Your task to perform on an android device: see creations saved in the google photos Image 0: 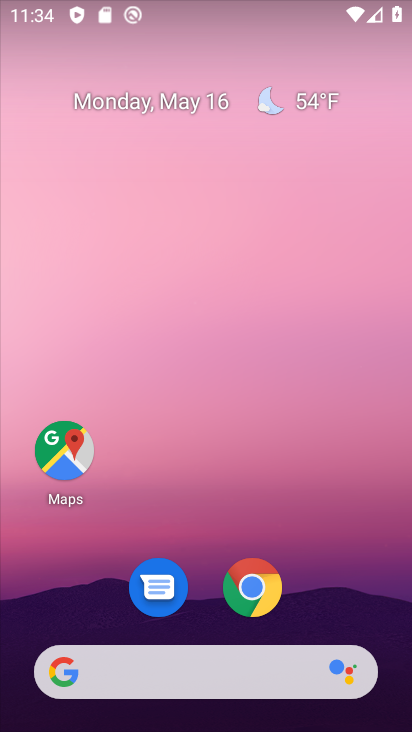
Step 0: drag from (215, 609) to (222, 30)
Your task to perform on an android device: see creations saved in the google photos Image 1: 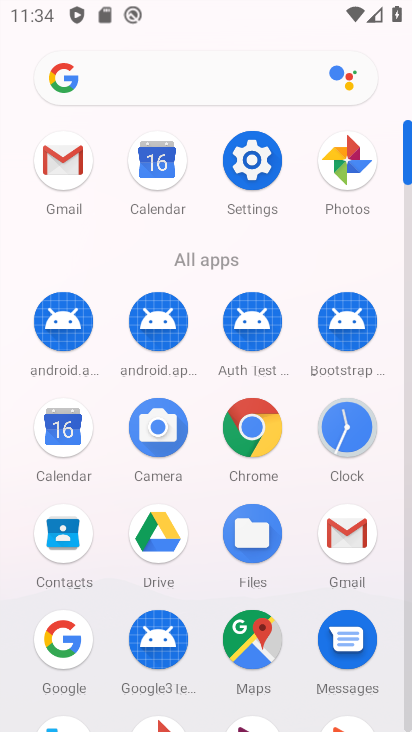
Step 1: drag from (209, 583) to (228, 284)
Your task to perform on an android device: see creations saved in the google photos Image 2: 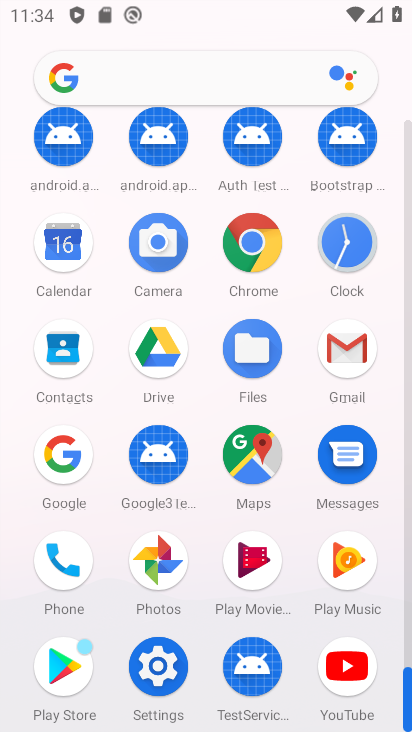
Step 2: click (65, 651)
Your task to perform on an android device: see creations saved in the google photos Image 3: 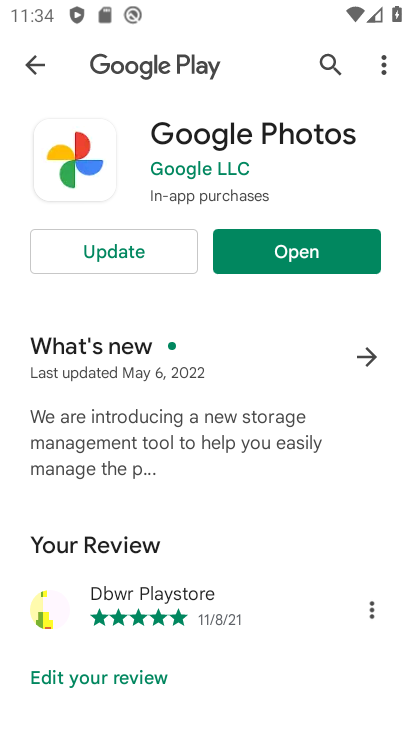
Step 3: click (278, 243)
Your task to perform on an android device: see creations saved in the google photos Image 4: 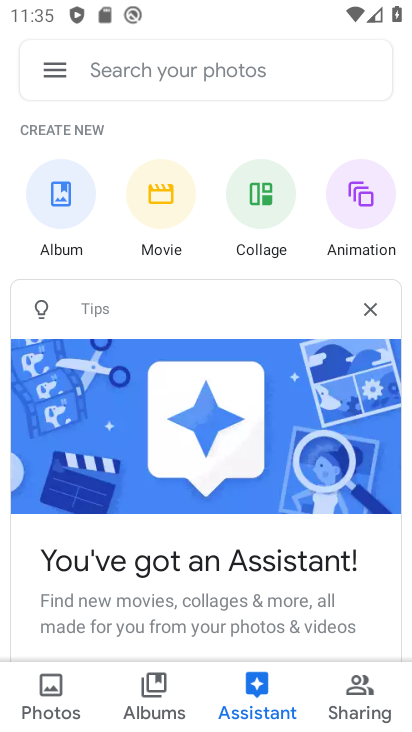
Step 4: click (217, 65)
Your task to perform on an android device: see creations saved in the google photos Image 5: 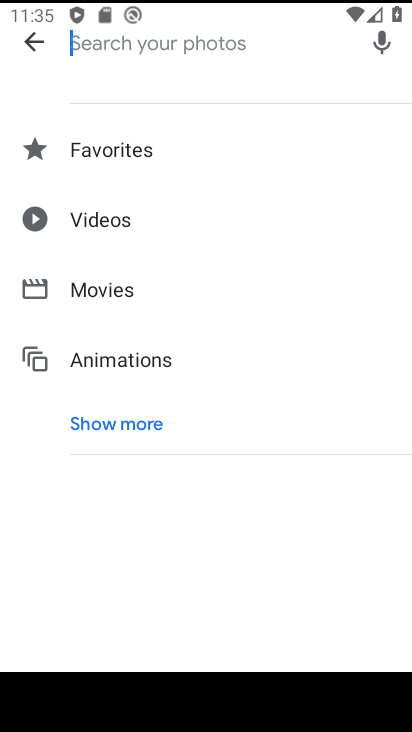
Step 5: type "creations"
Your task to perform on an android device: see creations saved in the google photos Image 6: 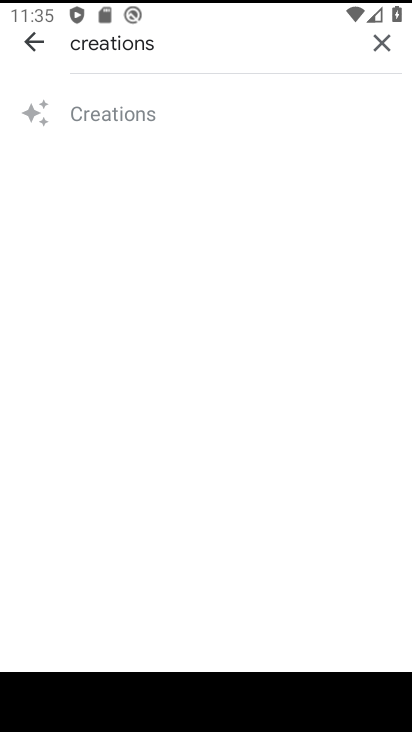
Step 6: click (111, 106)
Your task to perform on an android device: see creations saved in the google photos Image 7: 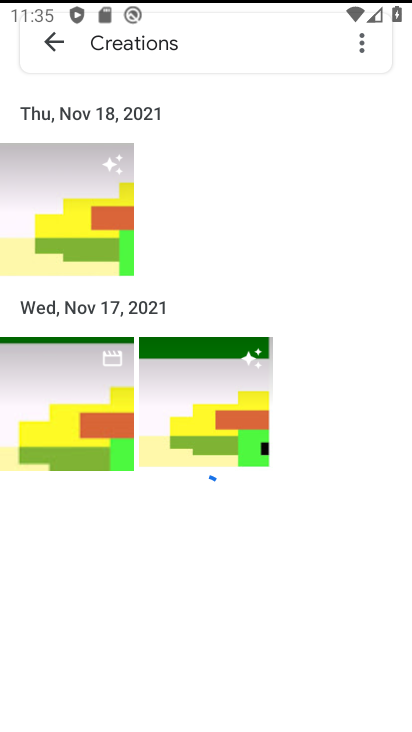
Step 7: click (64, 231)
Your task to perform on an android device: see creations saved in the google photos Image 8: 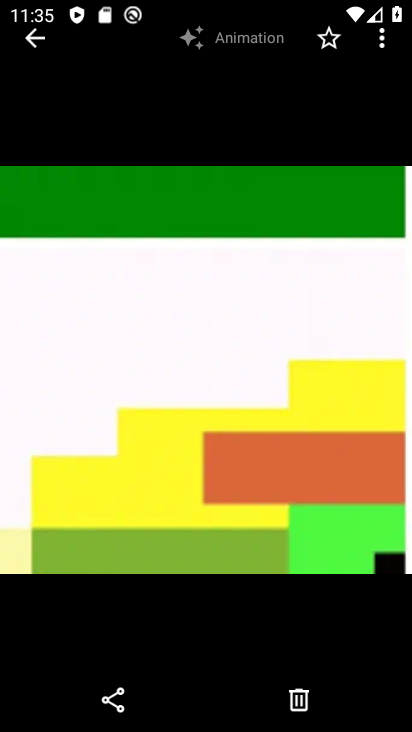
Step 8: task complete